Your task to perform on an android device: Open internet settings Image 0: 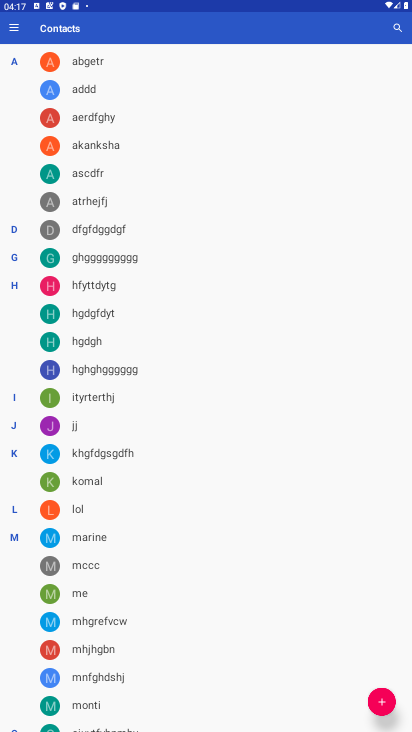
Step 0: press home button
Your task to perform on an android device: Open internet settings Image 1: 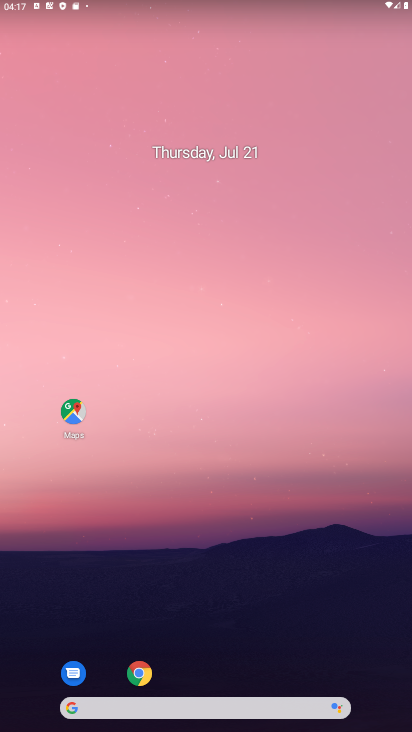
Step 1: drag from (380, 656) to (325, 185)
Your task to perform on an android device: Open internet settings Image 2: 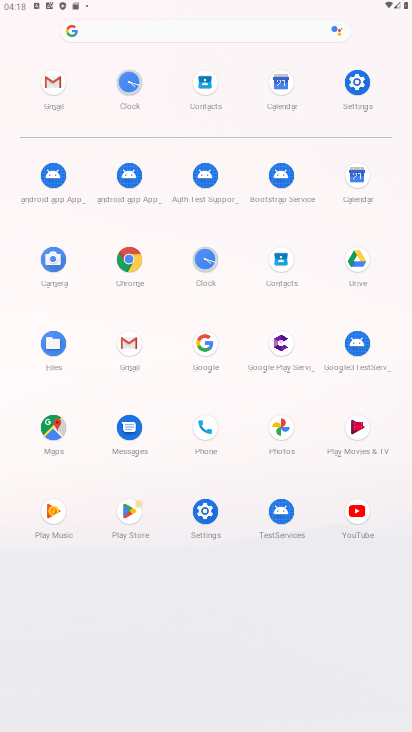
Step 2: click (205, 513)
Your task to perform on an android device: Open internet settings Image 3: 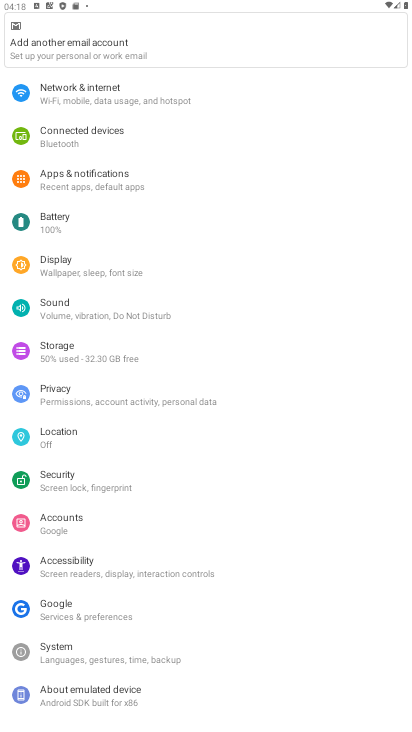
Step 3: click (72, 88)
Your task to perform on an android device: Open internet settings Image 4: 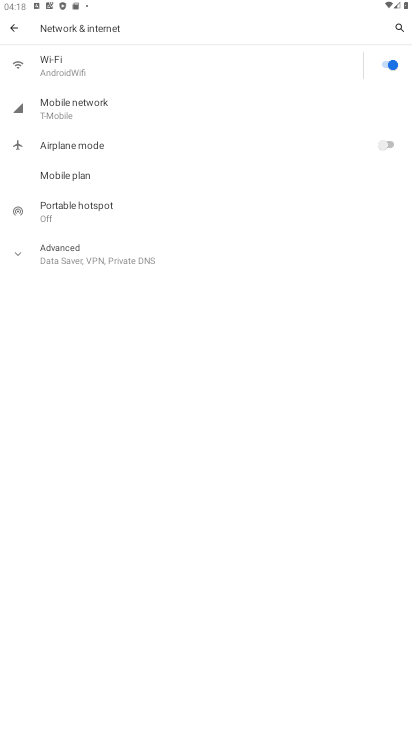
Step 4: click (48, 61)
Your task to perform on an android device: Open internet settings Image 5: 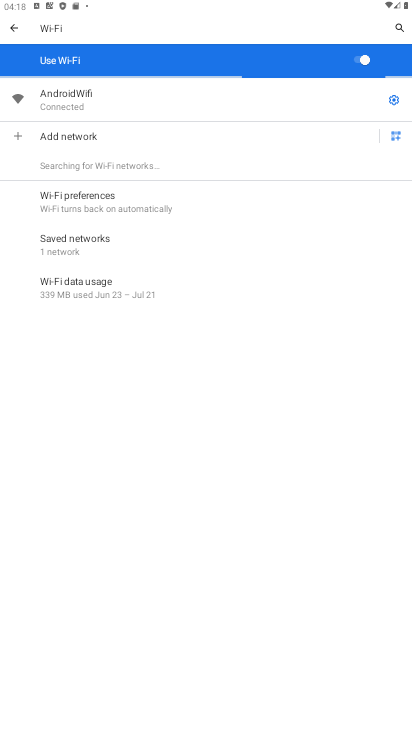
Step 5: task complete